Your task to perform on an android device: Open location settings Image 0: 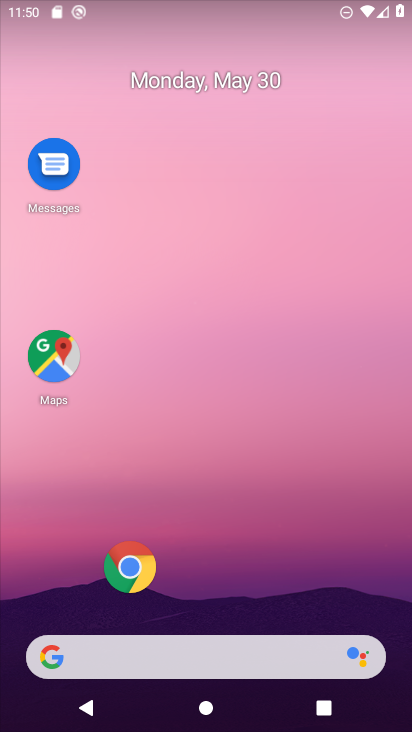
Step 0: drag from (250, 457) to (239, 10)
Your task to perform on an android device: Open location settings Image 1: 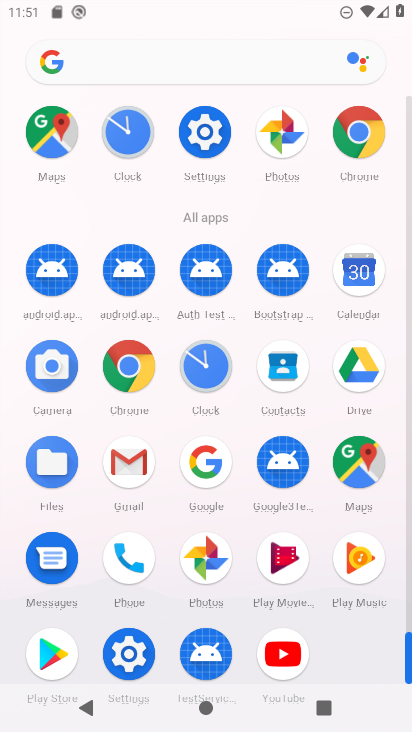
Step 1: drag from (8, 472) to (22, 177)
Your task to perform on an android device: Open location settings Image 2: 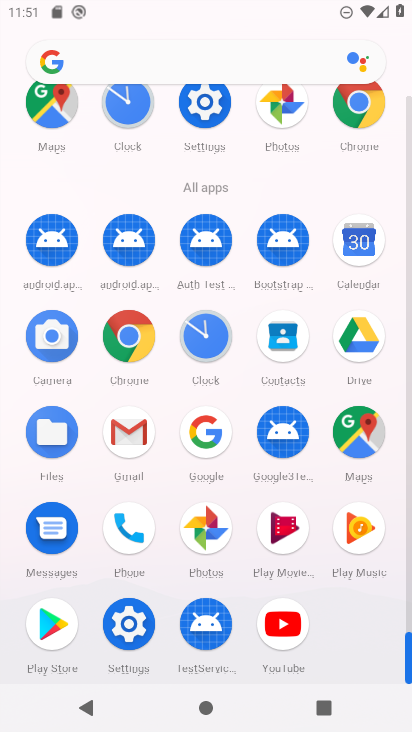
Step 2: click (130, 624)
Your task to perform on an android device: Open location settings Image 3: 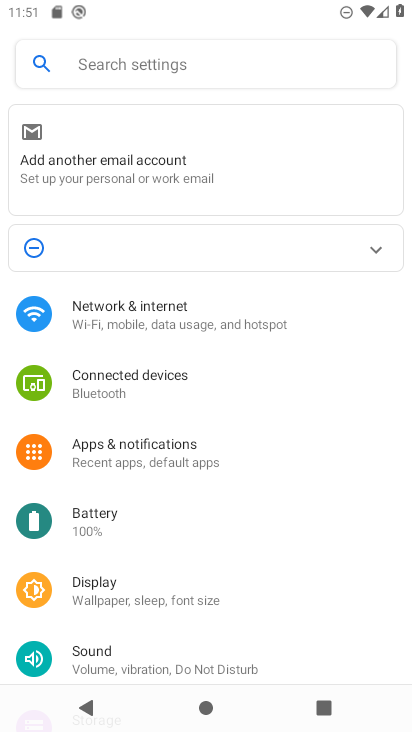
Step 3: drag from (283, 547) to (293, 229)
Your task to perform on an android device: Open location settings Image 4: 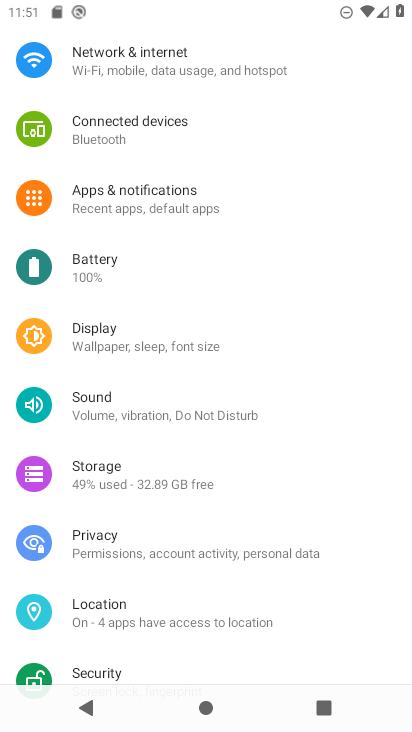
Step 4: drag from (263, 173) to (239, 438)
Your task to perform on an android device: Open location settings Image 5: 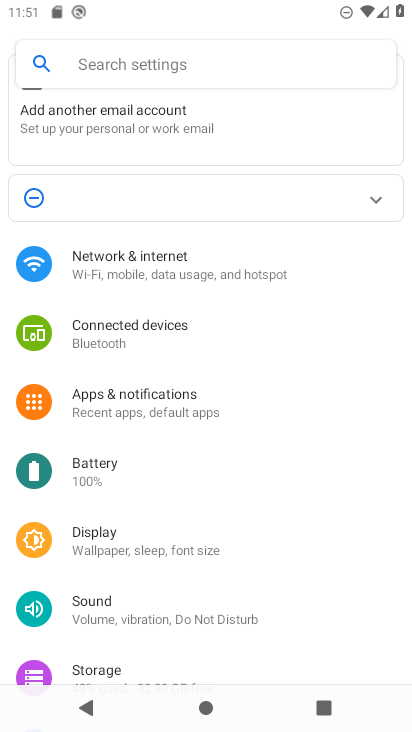
Step 5: drag from (263, 583) to (293, 310)
Your task to perform on an android device: Open location settings Image 6: 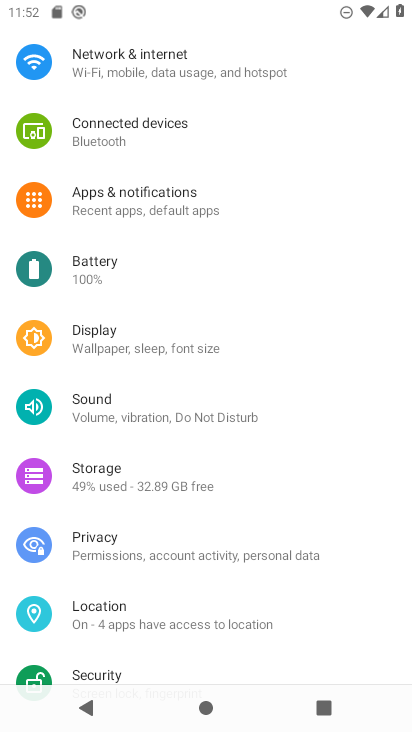
Step 6: click (156, 610)
Your task to perform on an android device: Open location settings Image 7: 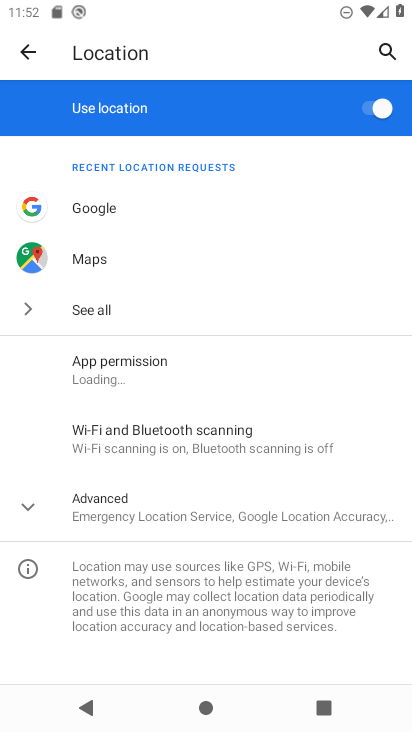
Step 7: click (39, 496)
Your task to perform on an android device: Open location settings Image 8: 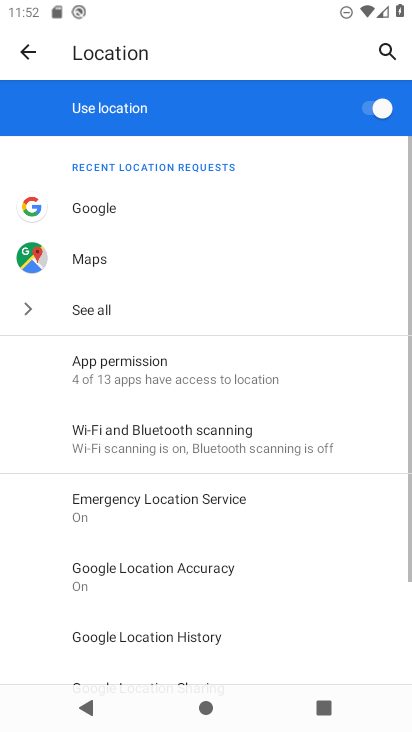
Step 8: task complete